Your task to perform on an android device: turn off picture-in-picture Image 0: 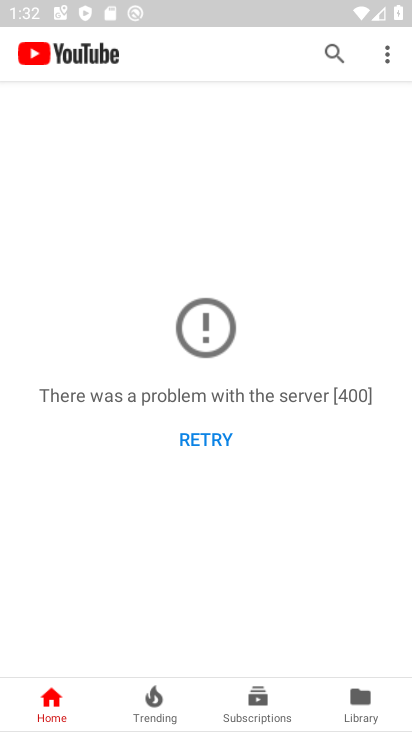
Step 0: press back button
Your task to perform on an android device: turn off picture-in-picture Image 1: 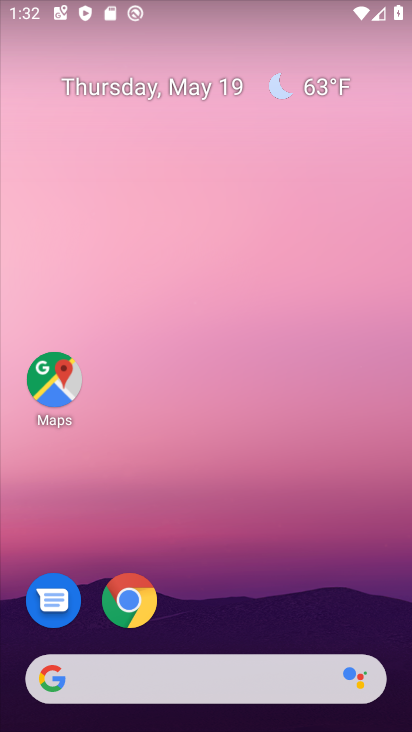
Step 1: drag from (141, 590) to (183, 590)
Your task to perform on an android device: turn off picture-in-picture Image 2: 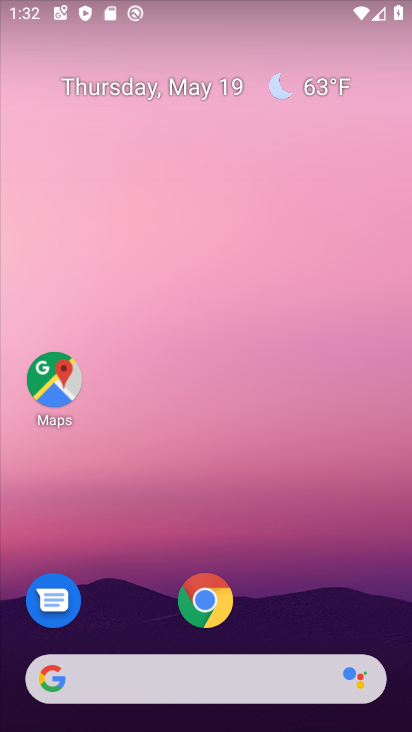
Step 2: click (206, 604)
Your task to perform on an android device: turn off picture-in-picture Image 3: 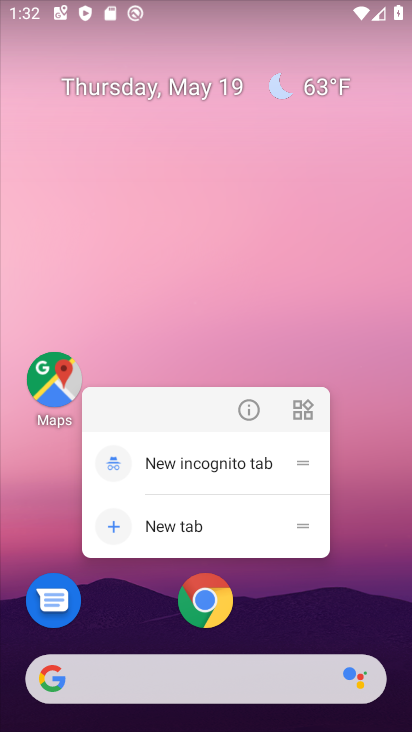
Step 3: click (240, 403)
Your task to perform on an android device: turn off picture-in-picture Image 4: 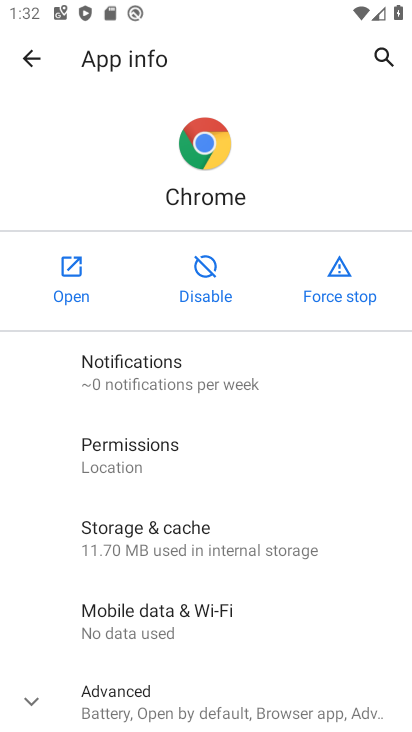
Step 4: click (184, 706)
Your task to perform on an android device: turn off picture-in-picture Image 5: 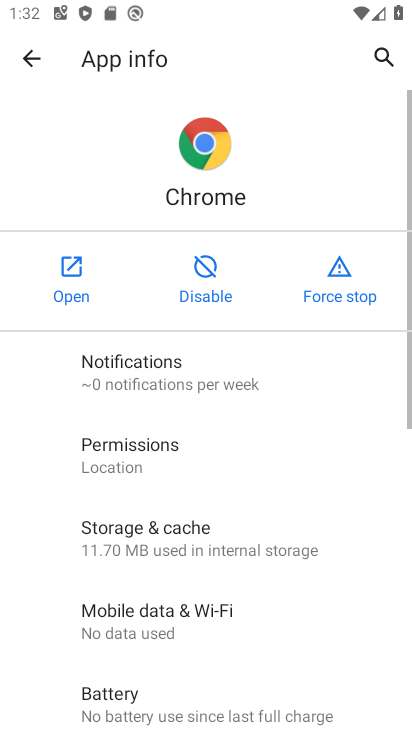
Step 5: drag from (190, 676) to (201, 216)
Your task to perform on an android device: turn off picture-in-picture Image 6: 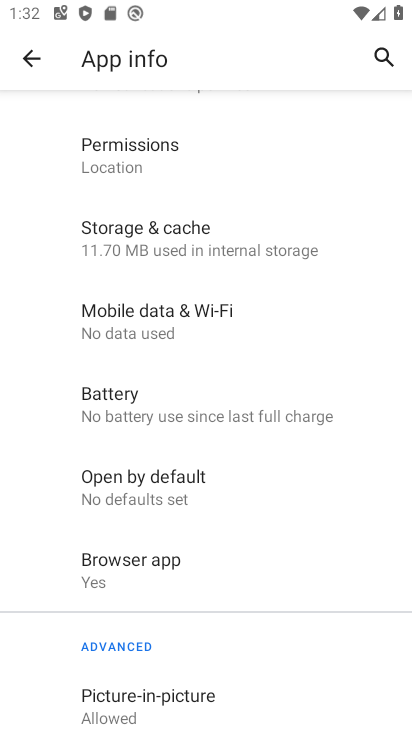
Step 6: click (173, 698)
Your task to perform on an android device: turn off picture-in-picture Image 7: 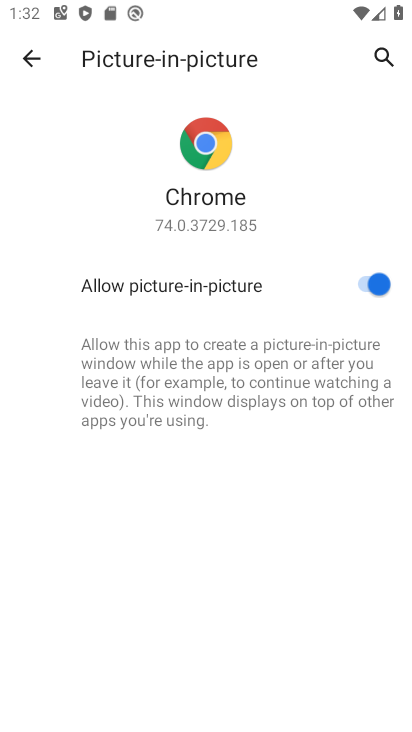
Step 7: click (369, 284)
Your task to perform on an android device: turn off picture-in-picture Image 8: 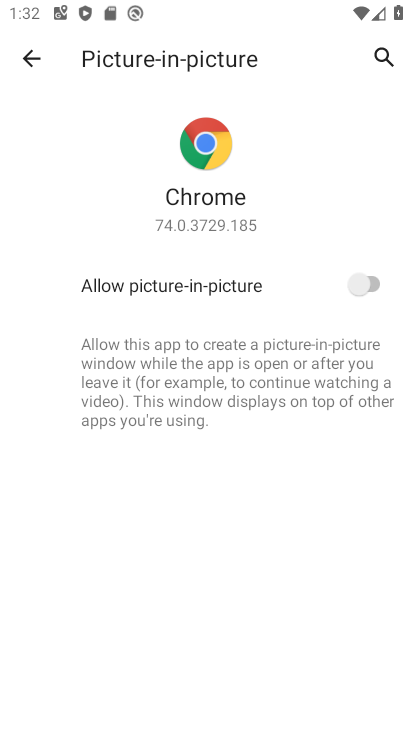
Step 8: task complete